Your task to perform on an android device: change keyboard looks Image 0: 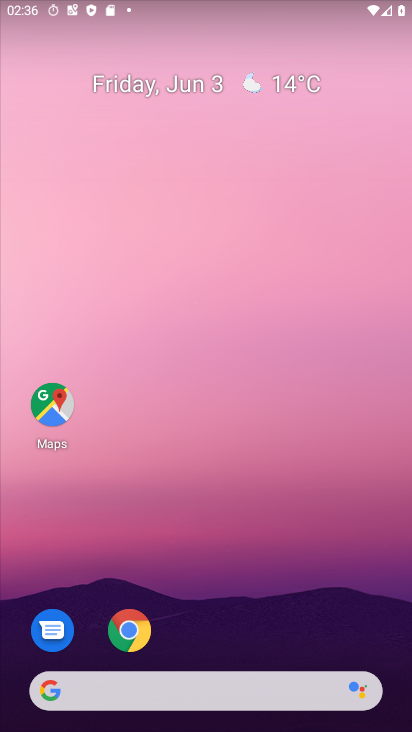
Step 0: drag from (389, 691) to (358, 191)
Your task to perform on an android device: change keyboard looks Image 1: 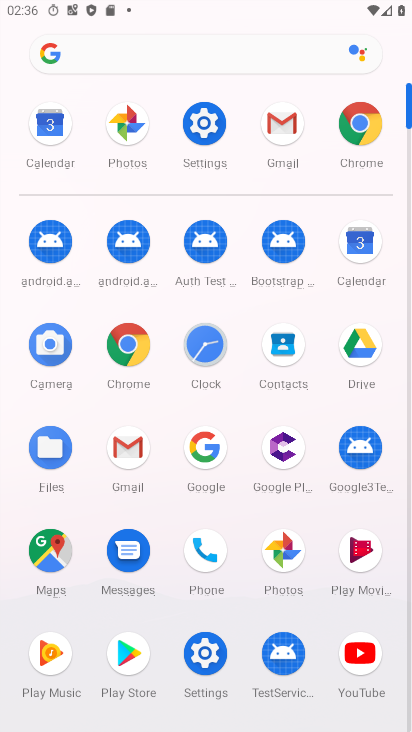
Step 1: click (206, 128)
Your task to perform on an android device: change keyboard looks Image 2: 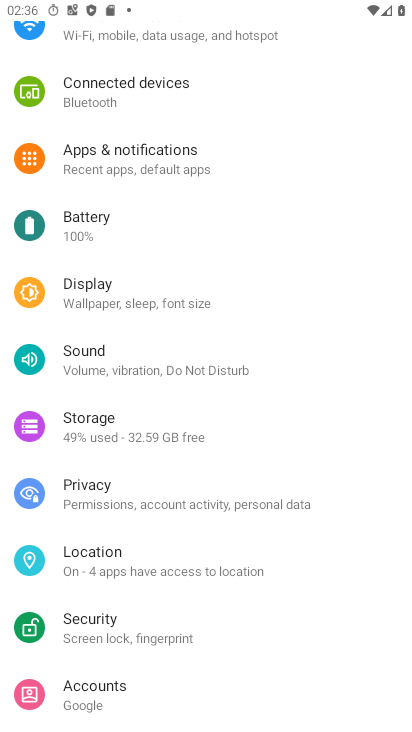
Step 2: drag from (270, 684) to (258, 359)
Your task to perform on an android device: change keyboard looks Image 3: 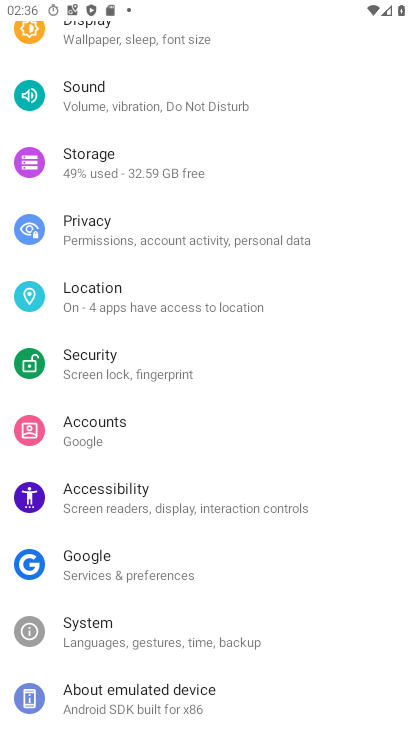
Step 3: drag from (342, 668) to (335, 470)
Your task to perform on an android device: change keyboard looks Image 4: 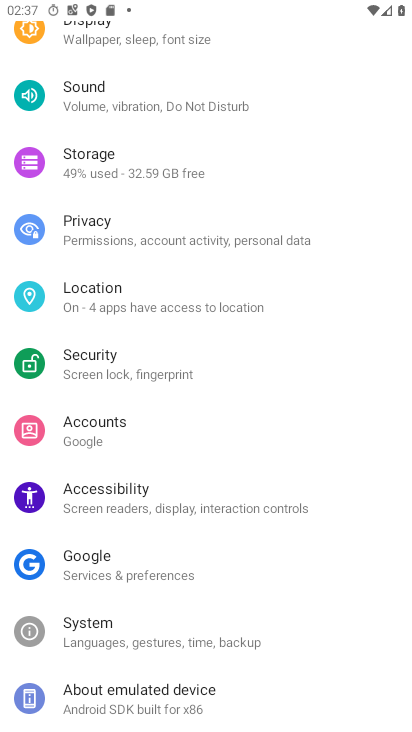
Step 4: click (132, 631)
Your task to perform on an android device: change keyboard looks Image 5: 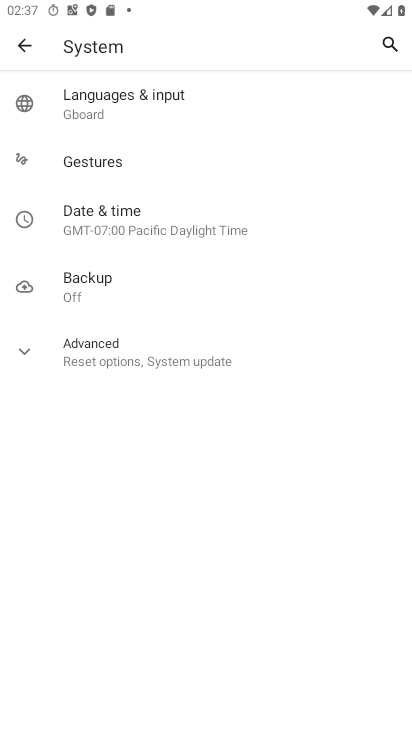
Step 5: drag from (316, 152) to (365, 419)
Your task to perform on an android device: change keyboard looks Image 6: 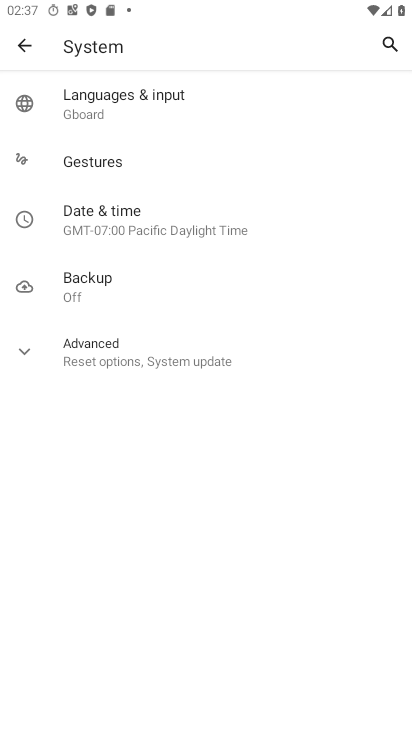
Step 6: click (99, 91)
Your task to perform on an android device: change keyboard looks Image 7: 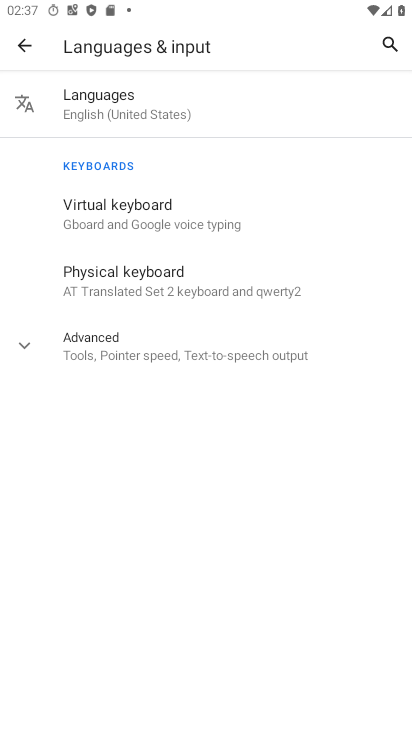
Step 7: click (121, 218)
Your task to perform on an android device: change keyboard looks Image 8: 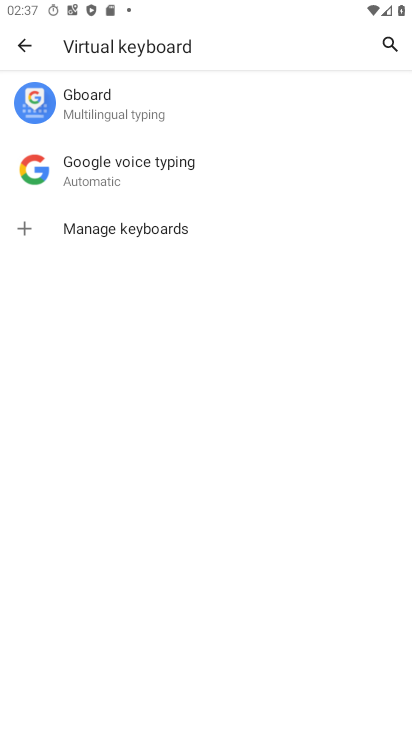
Step 8: click (86, 101)
Your task to perform on an android device: change keyboard looks Image 9: 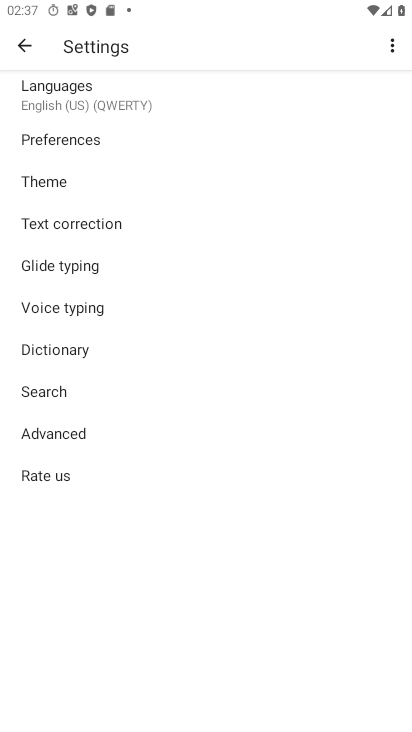
Step 9: click (41, 184)
Your task to perform on an android device: change keyboard looks Image 10: 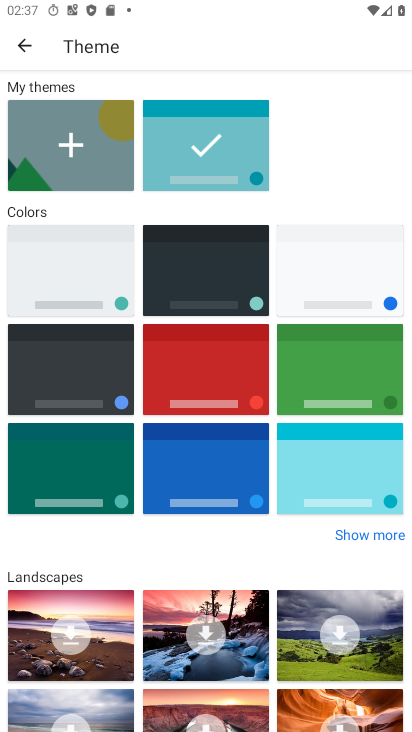
Step 10: click (330, 476)
Your task to perform on an android device: change keyboard looks Image 11: 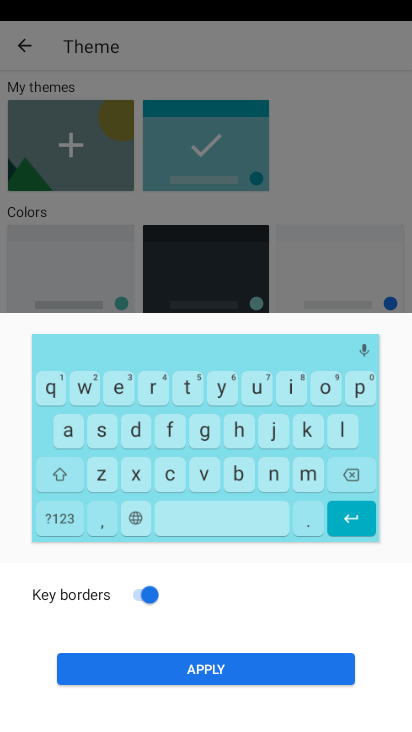
Step 11: click (249, 666)
Your task to perform on an android device: change keyboard looks Image 12: 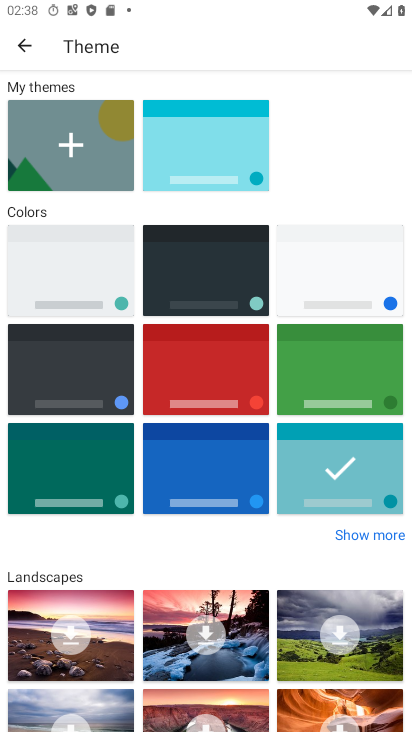
Step 12: task complete